Your task to perform on an android device: find photos in the google photos app Image 0: 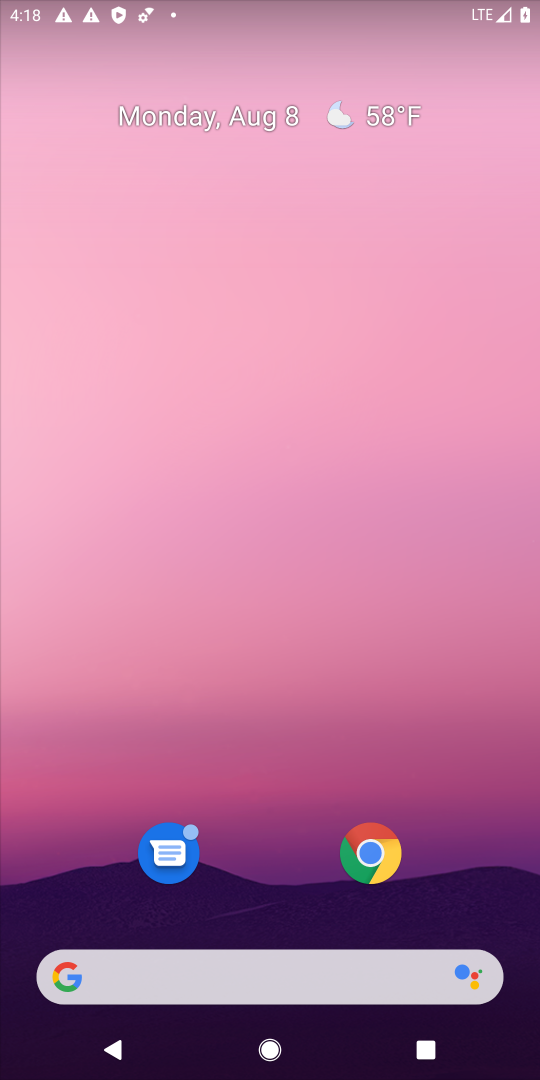
Step 0: drag from (243, 756) to (462, 12)
Your task to perform on an android device: find photos in the google photos app Image 1: 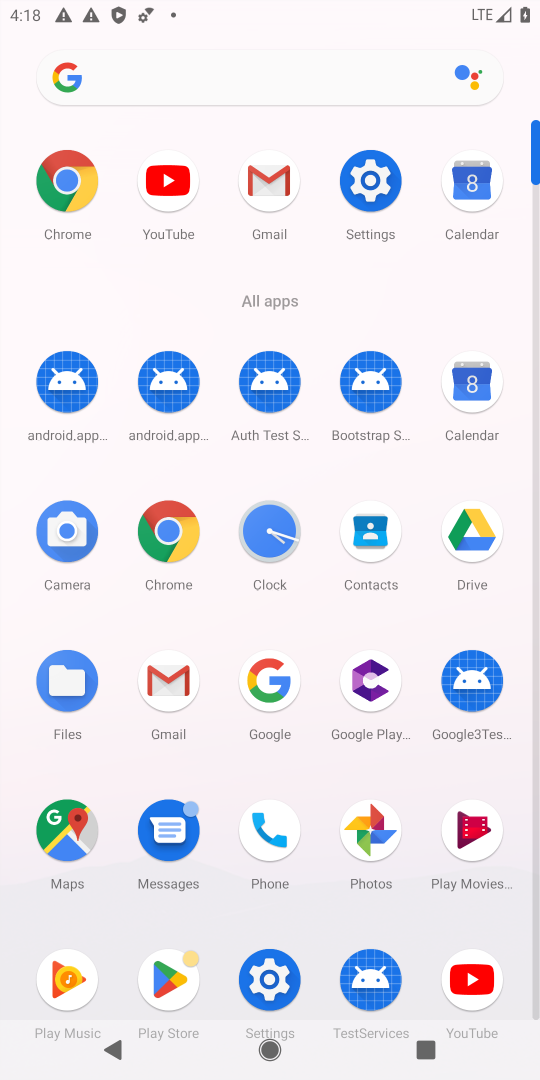
Step 1: click (378, 823)
Your task to perform on an android device: find photos in the google photos app Image 2: 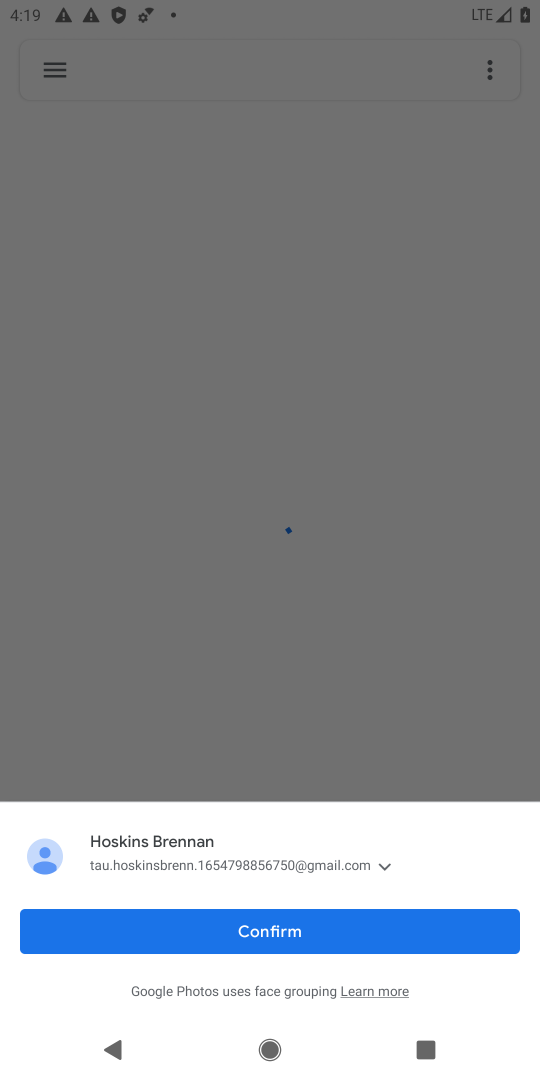
Step 2: click (59, 992)
Your task to perform on an android device: find photos in the google photos app Image 3: 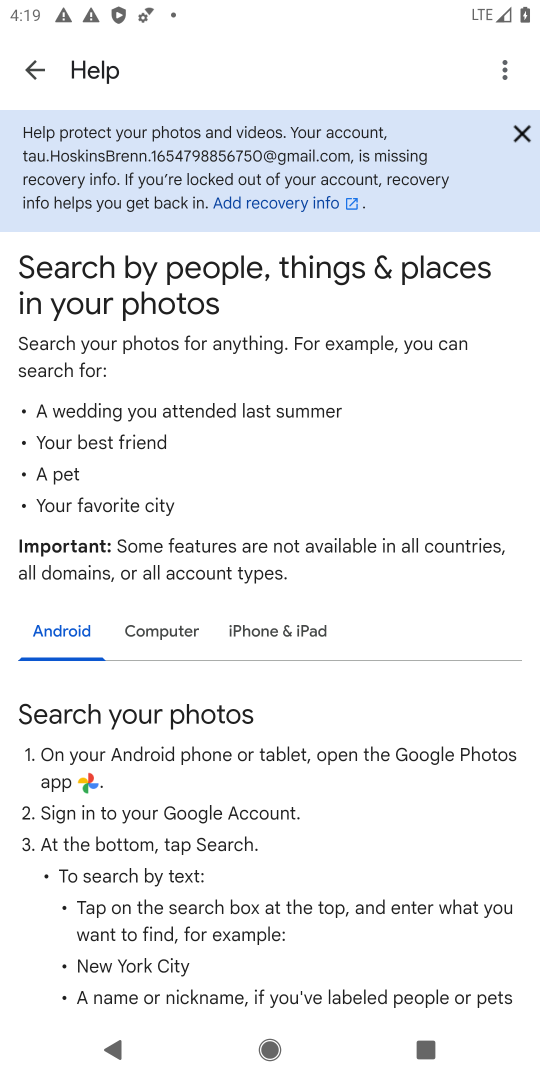
Step 3: task complete